Your task to perform on an android device: Toggle the flashlight Image 0: 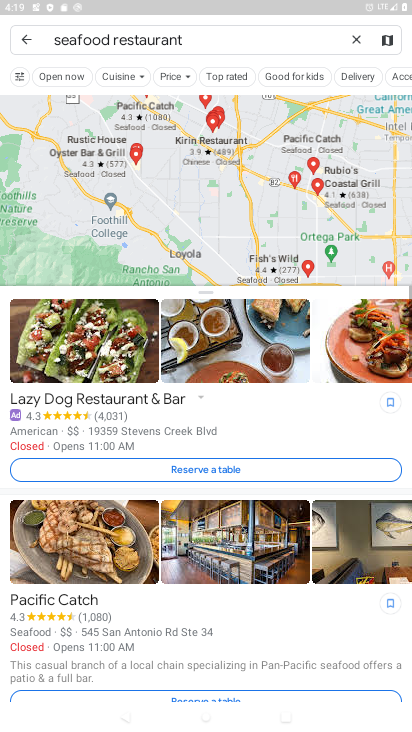
Step 0: press home button
Your task to perform on an android device: Toggle the flashlight Image 1: 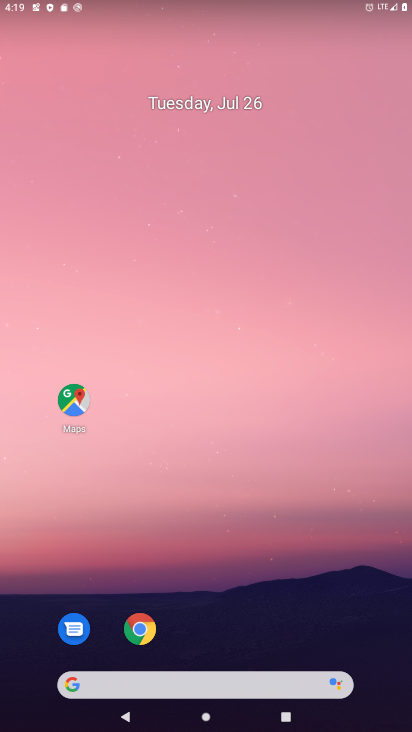
Step 1: click (231, 695)
Your task to perform on an android device: Toggle the flashlight Image 2: 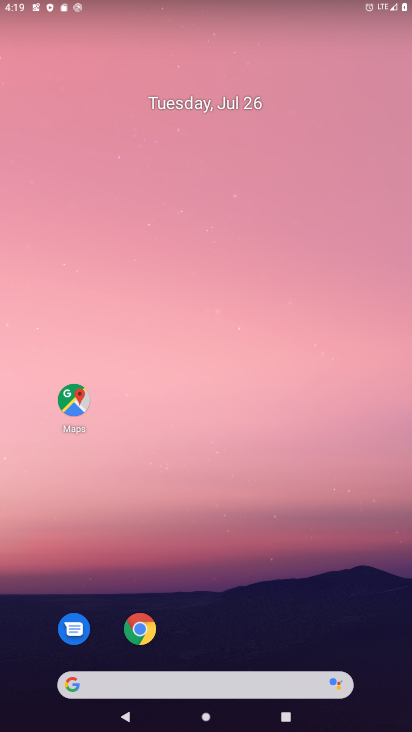
Step 2: drag from (243, 360) to (256, 128)
Your task to perform on an android device: Toggle the flashlight Image 3: 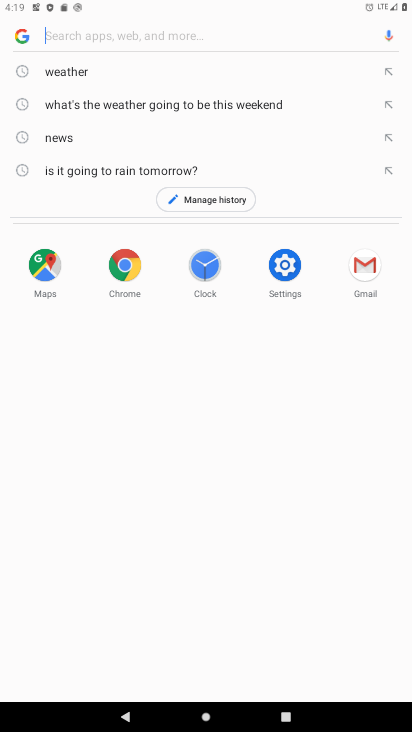
Step 3: press home button
Your task to perform on an android device: Toggle the flashlight Image 4: 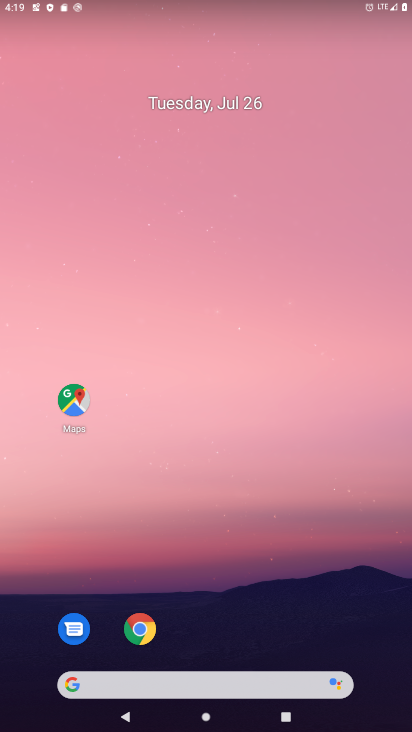
Step 4: drag from (237, 728) to (234, 60)
Your task to perform on an android device: Toggle the flashlight Image 5: 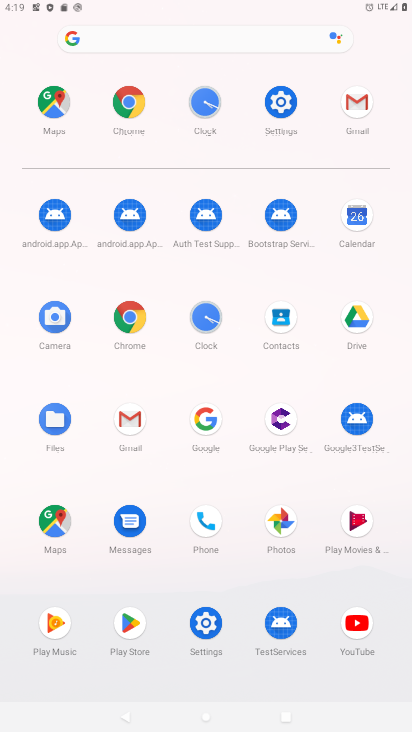
Step 5: click (281, 104)
Your task to perform on an android device: Toggle the flashlight Image 6: 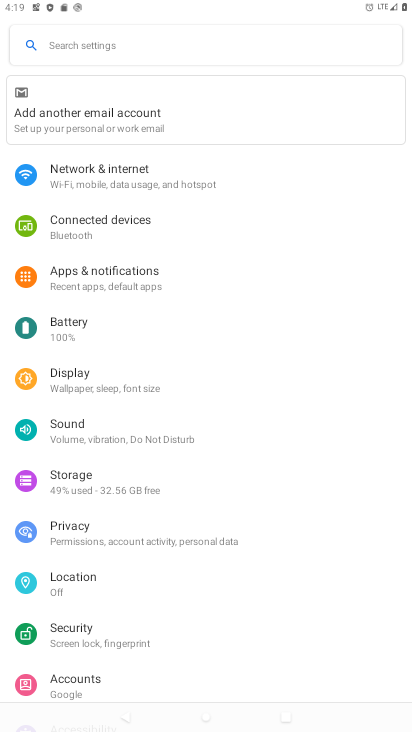
Step 6: task complete